Your task to perform on an android device: turn on data saver in the chrome app Image 0: 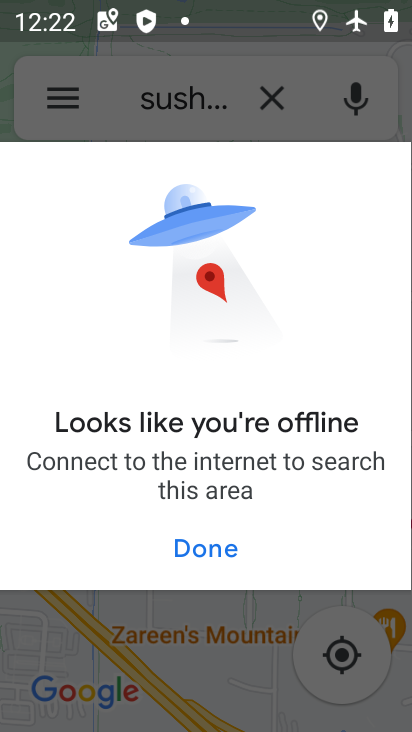
Step 0: press home button
Your task to perform on an android device: turn on data saver in the chrome app Image 1: 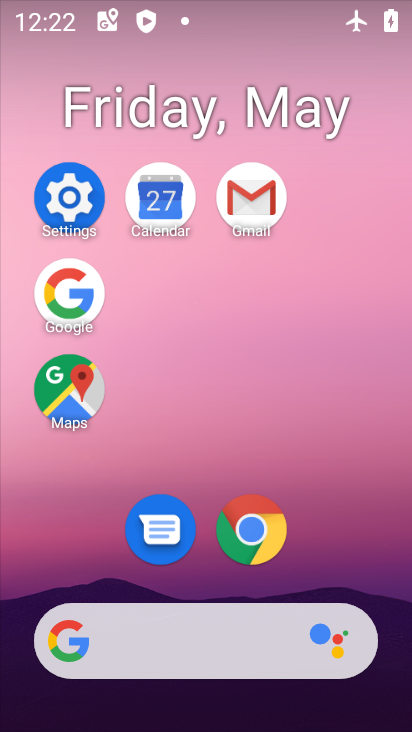
Step 1: click (223, 535)
Your task to perform on an android device: turn on data saver in the chrome app Image 2: 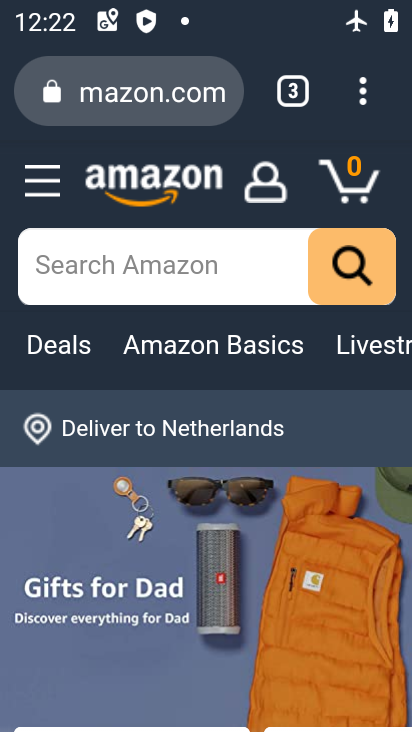
Step 2: click (381, 96)
Your task to perform on an android device: turn on data saver in the chrome app Image 3: 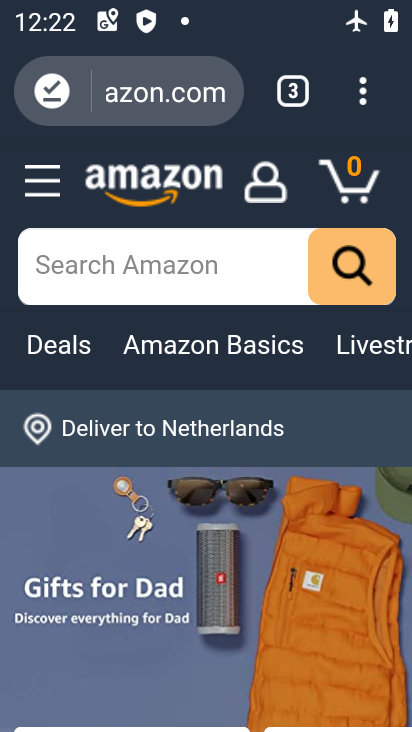
Step 3: click (375, 89)
Your task to perform on an android device: turn on data saver in the chrome app Image 4: 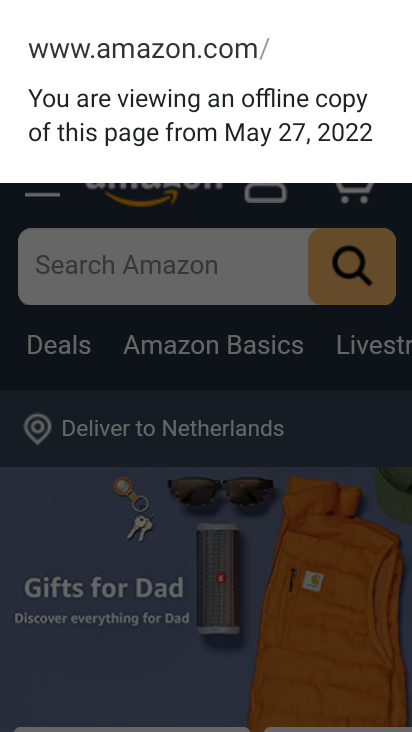
Step 4: click (396, 392)
Your task to perform on an android device: turn on data saver in the chrome app Image 5: 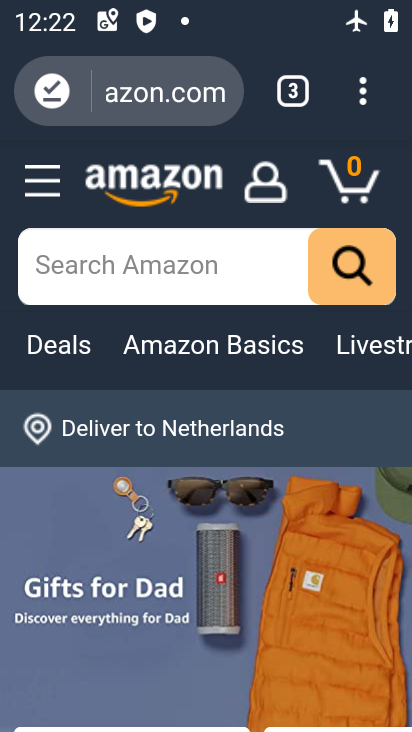
Step 5: click (359, 71)
Your task to perform on an android device: turn on data saver in the chrome app Image 6: 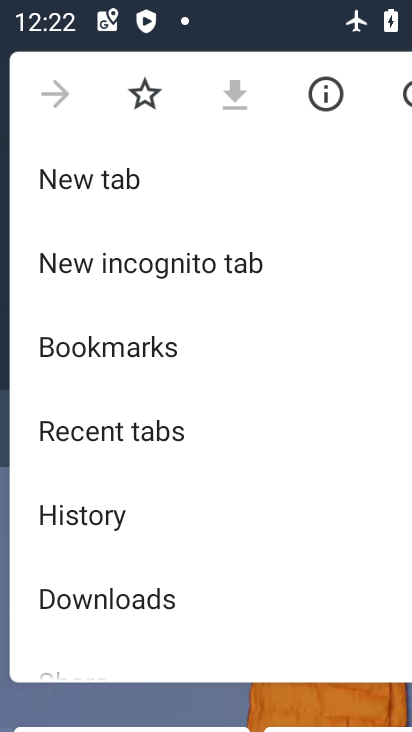
Step 6: drag from (183, 493) to (197, 17)
Your task to perform on an android device: turn on data saver in the chrome app Image 7: 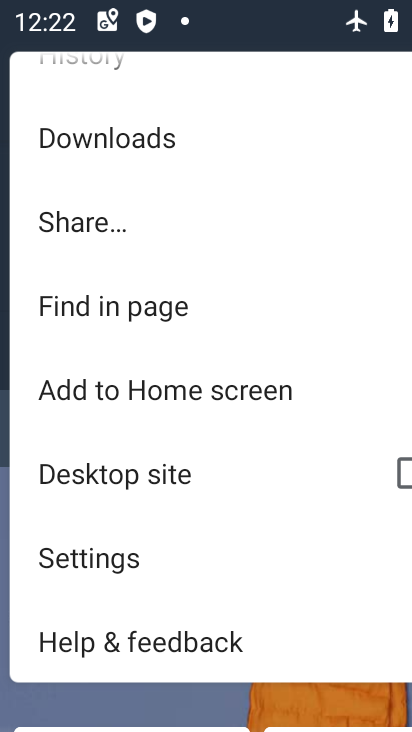
Step 7: click (144, 556)
Your task to perform on an android device: turn on data saver in the chrome app Image 8: 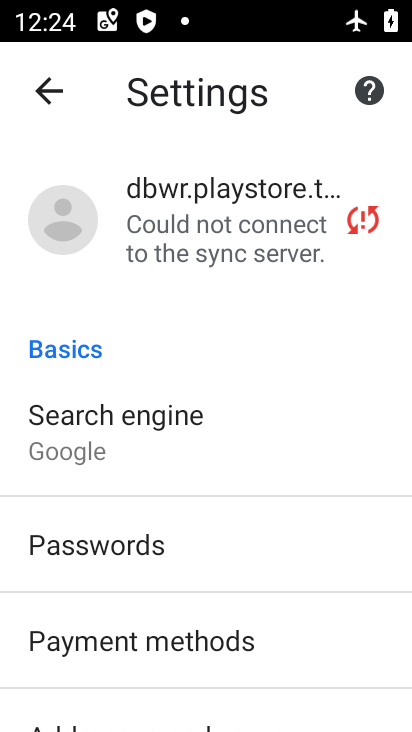
Step 8: drag from (181, 540) to (266, 206)
Your task to perform on an android device: turn on data saver in the chrome app Image 9: 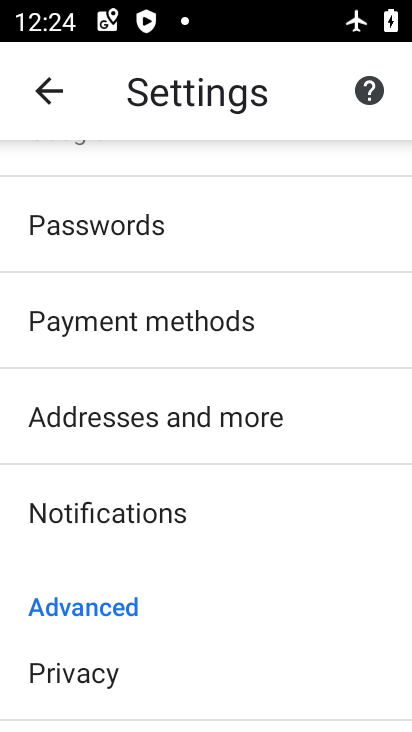
Step 9: drag from (181, 525) to (179, 118)
Your task to perform on an android device: turn on data saver in the chrome app Image 10: 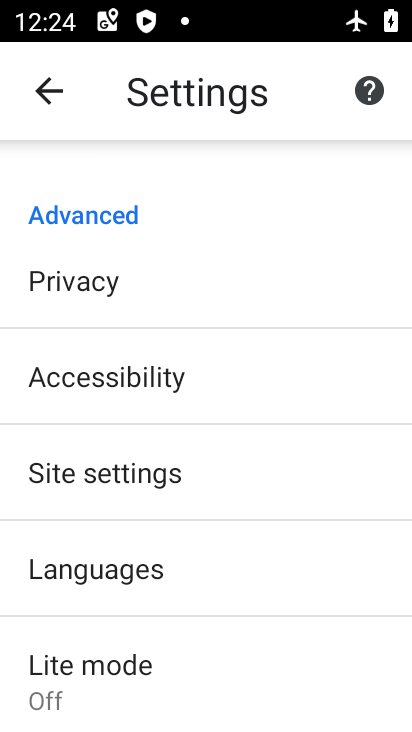
Step 10: drag from (243, 541) to (228, 171)
Your task to perform on an android device: turn on data saver in the chrome app Image 11: 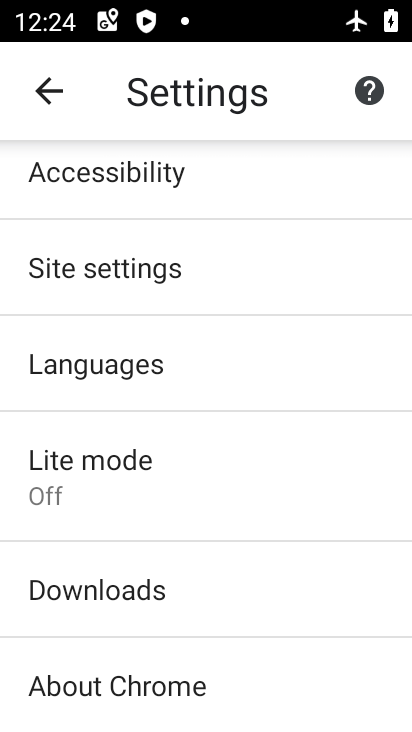
Step 11: click (215, 449)
Your task to perform on an android device: turn on data saver in the chrome app Image 12: 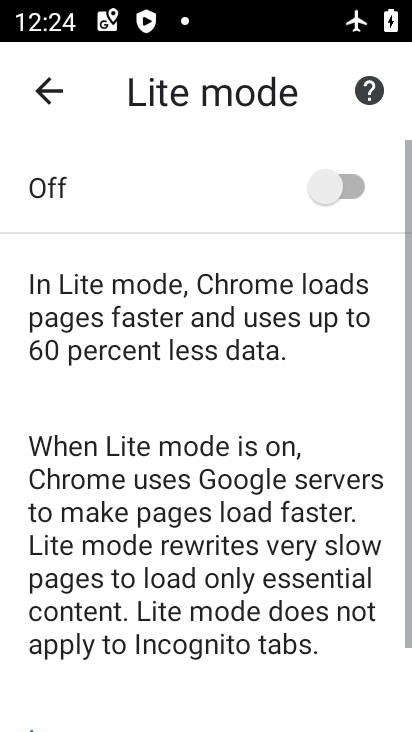
Step 12: click (333, 186)
Your task to perform on an android device: turn on data saver in the chrome app Image 13: 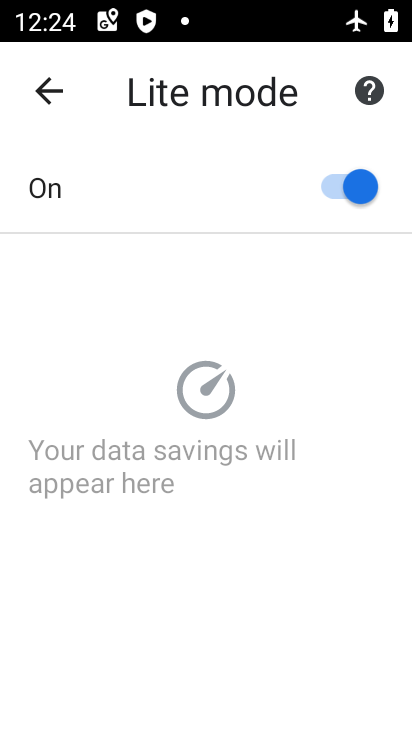
Step 13: task complete